Your task to perform on an android device: open chrome and create a bookmark for the current page Image 0: 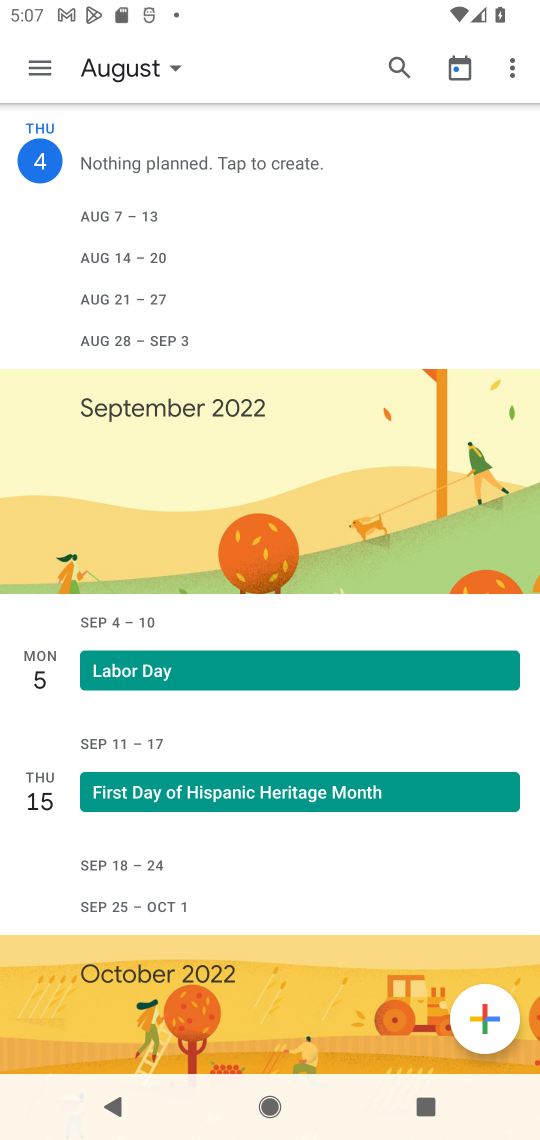
Step 0: press home button
Your task to perform on an android device: open chrome and create a bookmark for the current page Image 1: 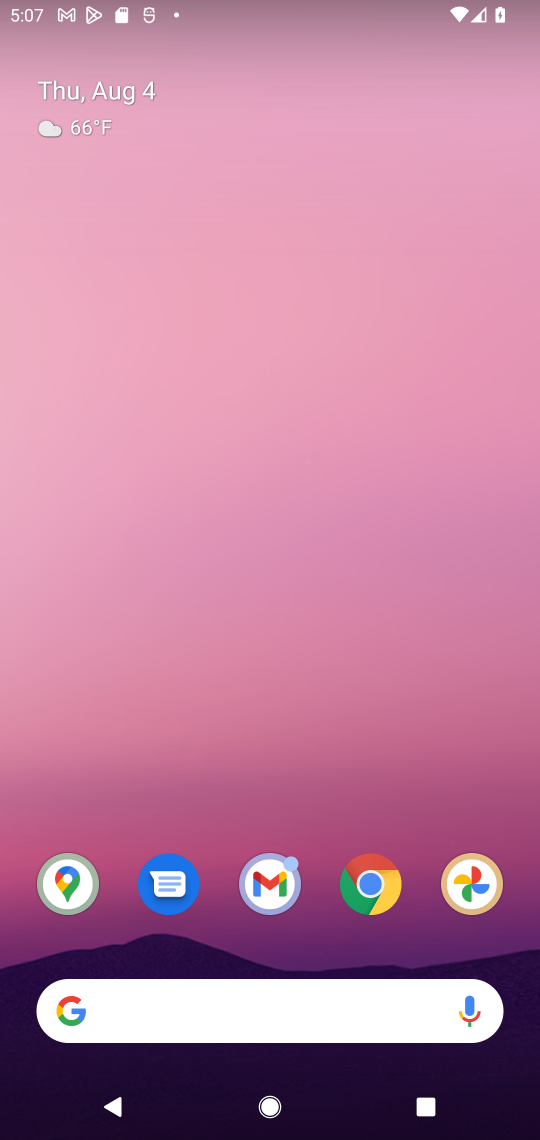
Step 1: click (358, 882)
Your task to perform on an android device: open chrome and create a bookmark for the current page Image 2: 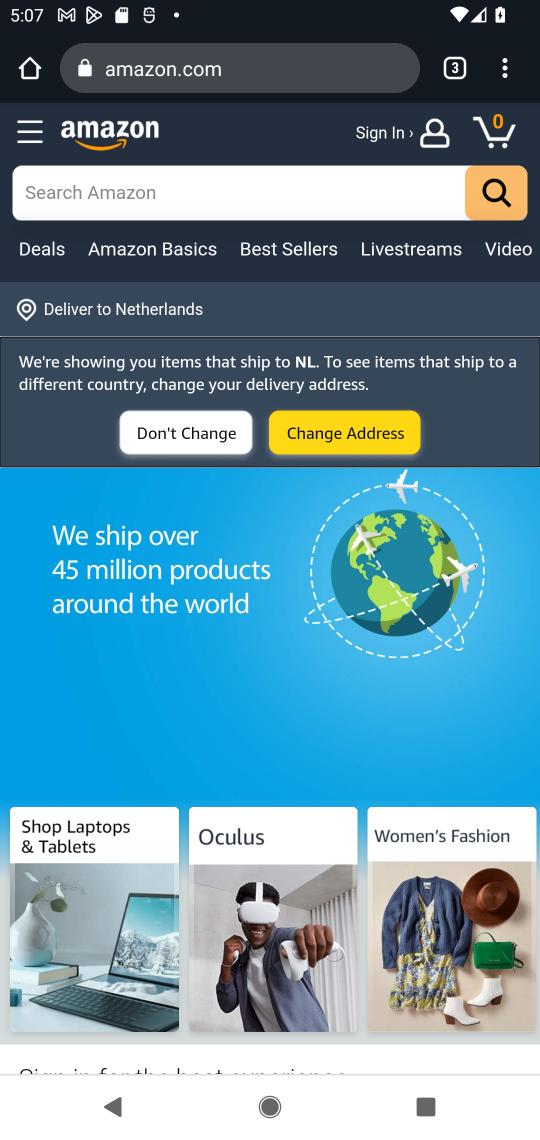
Step 2: click (509, 67)
Your task to perform on an android device: open chrome and create a bookmark for the current page Image 3: 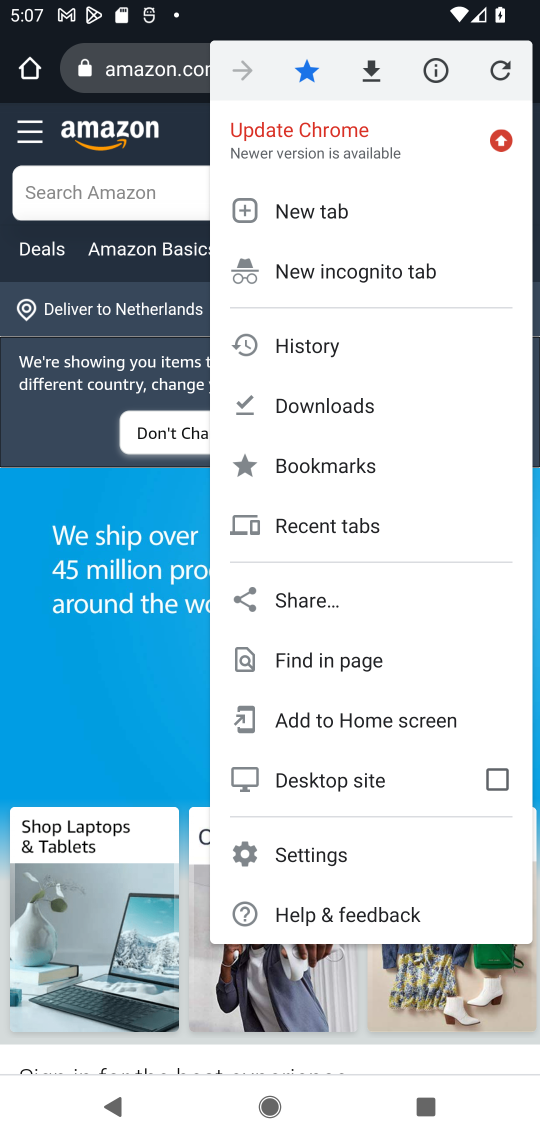
Step 3: task complete